Your task to perform on an android device: Go to internet settings Image 0: 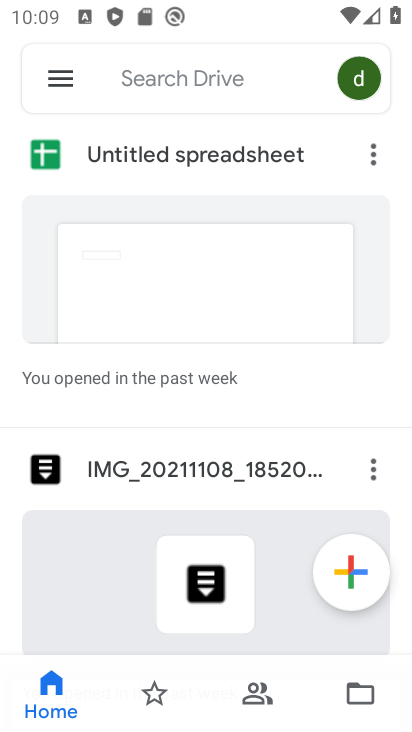
Step 0: press home button
Your task to perform on an android device: Go to internet settings Image 1: 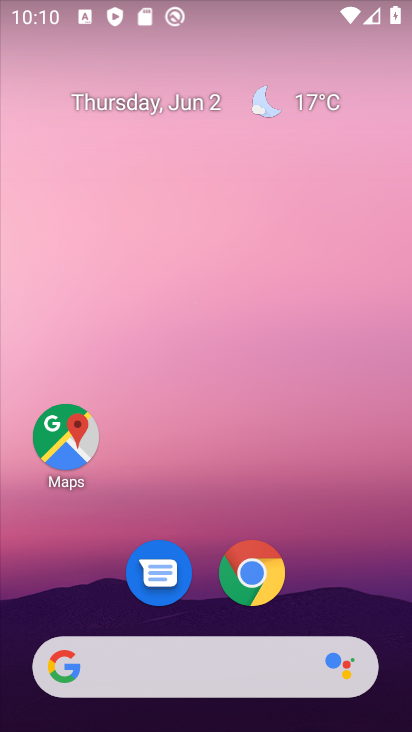
Step 1: drag from (406, 491) to (254, 0)
Your task to perform on an android device: Go to internet settings Image 2: 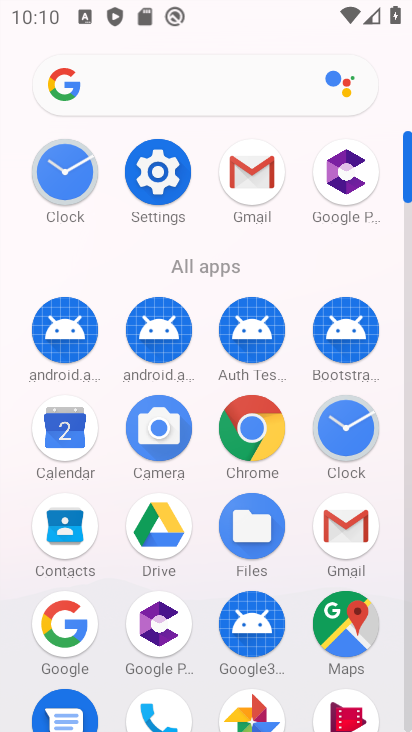
Step 2: click (156, 179)
Your task to perform on an android device: Go to internet settings Image 3: 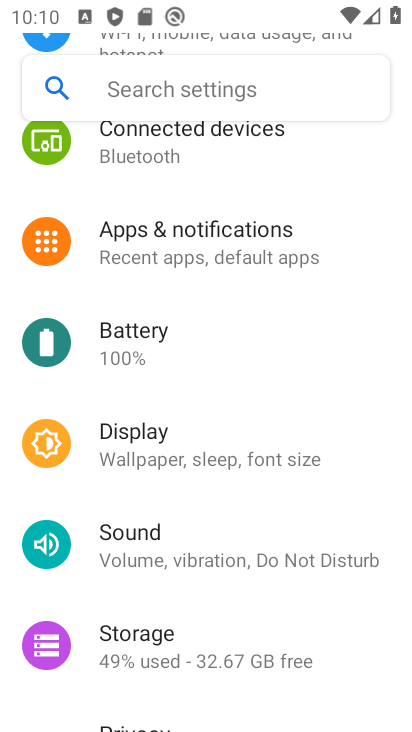
Step 3: drag from (158, 170) to (264, 646)
Your task to perform on an android device: Go to internet settings Image 4: 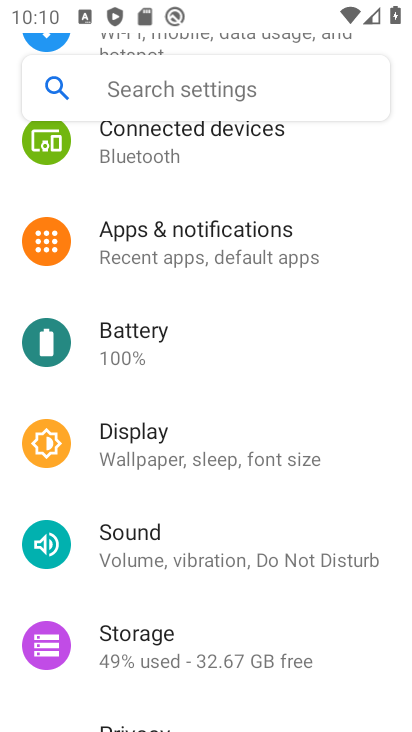
Step 4: drag from (250, 157) to (251, 474)
Your task to perform on an android device: Go to internet settings Image 5: 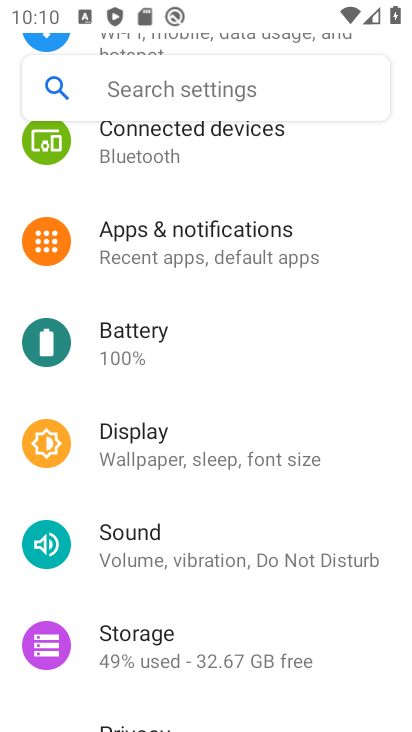
Step 5: drag from (162, 195) to (218, 618)
Your task to perform on an android device: Go to internet settings Image 6: 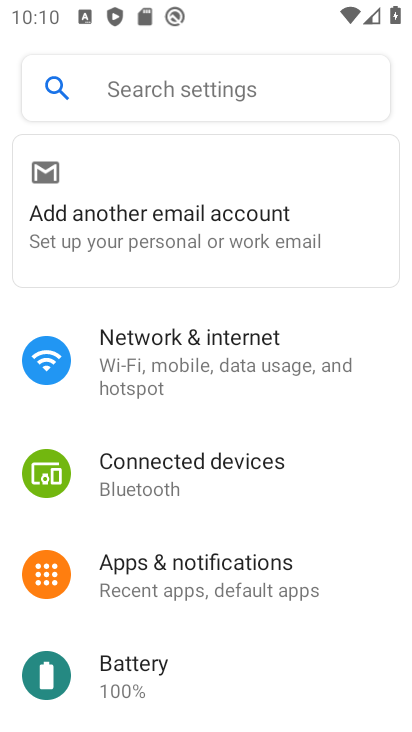
Step 6: click (172, 349)
Your task to perform on an android device: Go to internet settings Image 7: 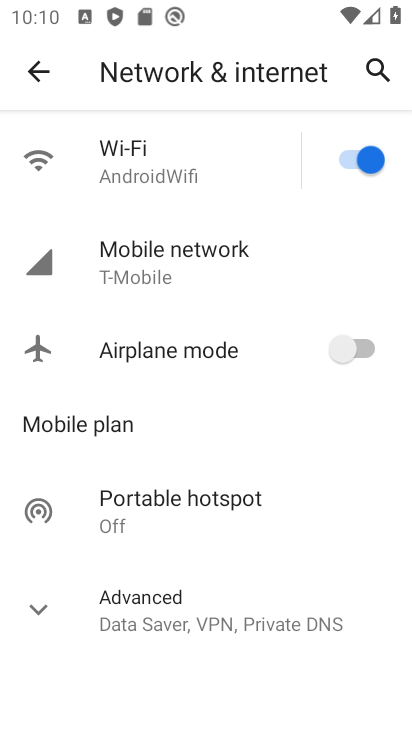
Step 7: task complete